Your task to perform on an android device: move a message to another label in the gmail app Image 0: 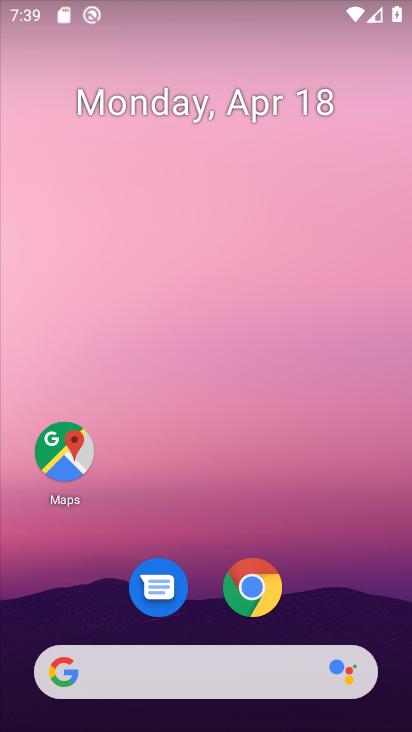
Step 0: drag from (178, 503) to (145, 6)
Your task to perform on an android device: move a message to another label in the gmail app Image 1: 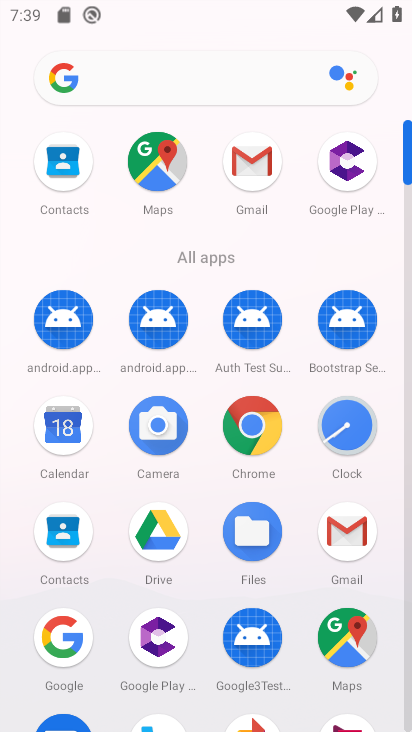
Step 1: click (273, 159)
Your task to perform on an android device: move a message to another label in the gmail app Image 2: 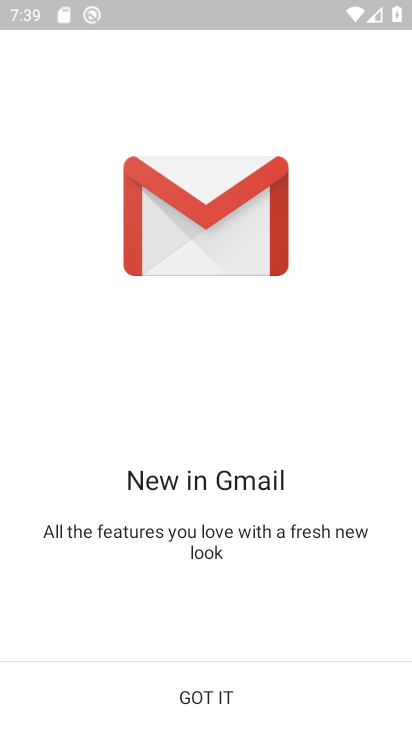
Step 2: click (279, 700)
Your task to perform on an android device: move a message to another label in the gmail app Image 3: 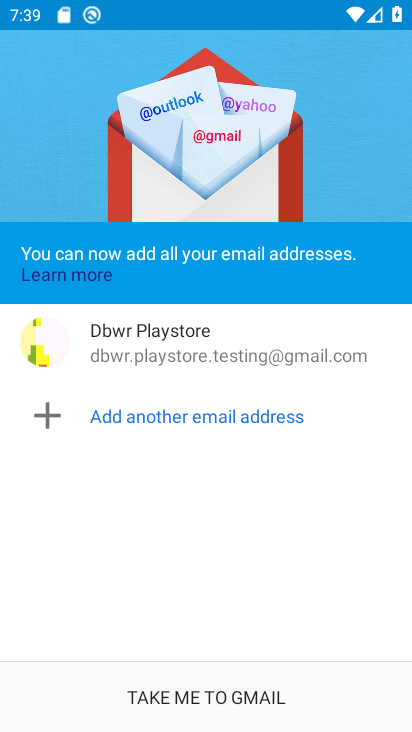
Step 3: click (279, 700)
Your task to perform on an android device: move a message to another label in the gmail app Image 4: 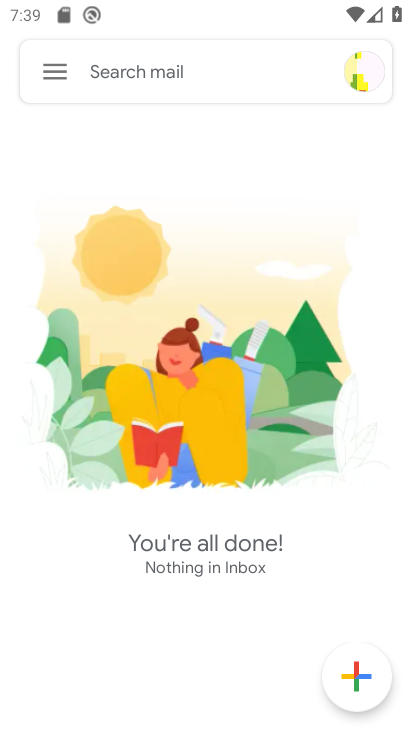
Step 4: task complete